Your task to perform on an android device: empty trash in the gmail app Image 0: 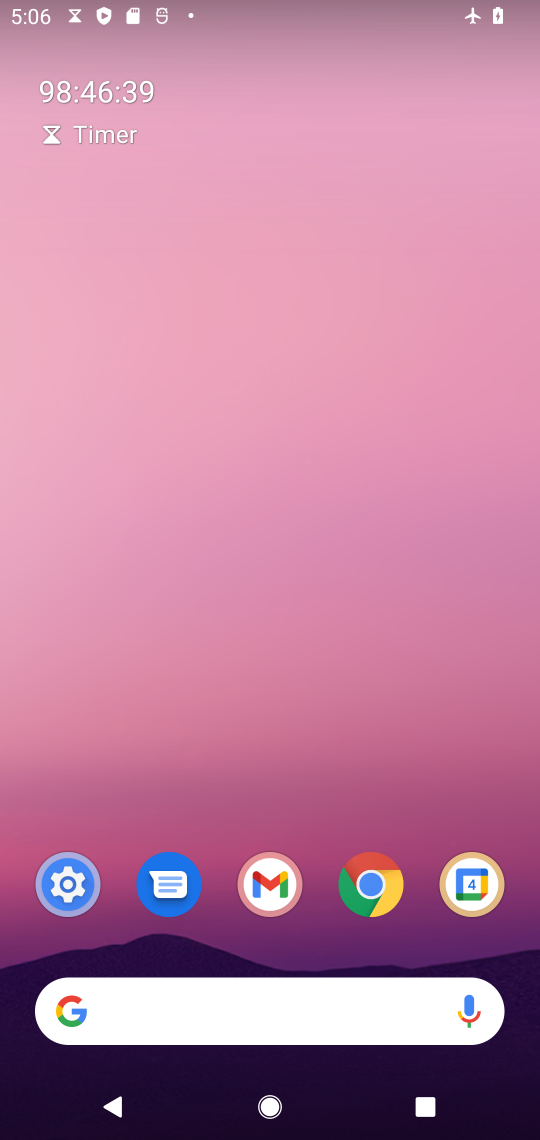
Step 0: drag from (295, 873) to (313, 450)
Your task to perform on an android device: empty trash in the gmail app Image 1: 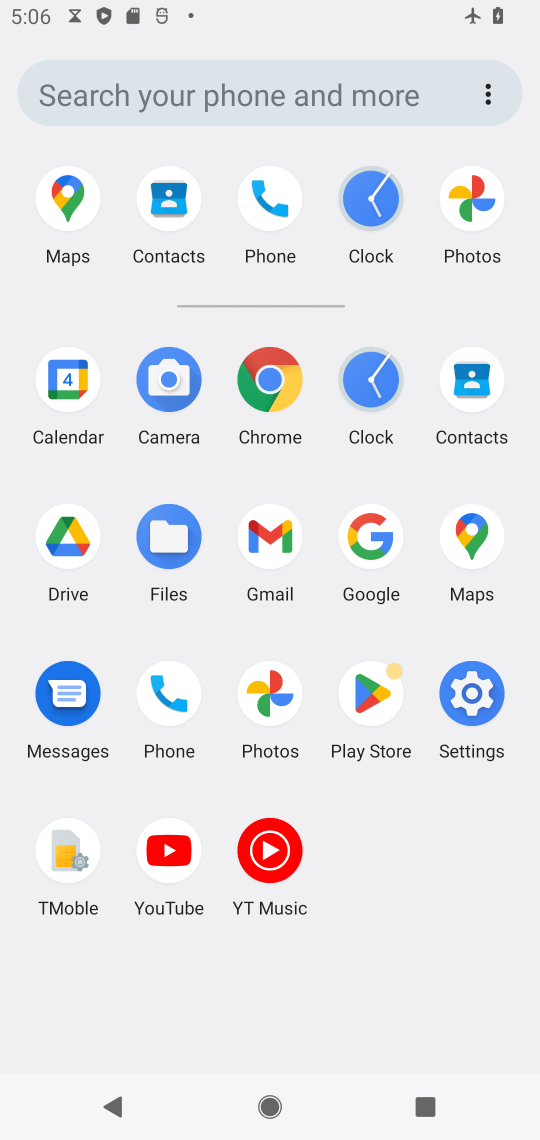
Step 1: click (283, 543)
Your task to perform on an android device: empty trash in the gmail app Image 2: 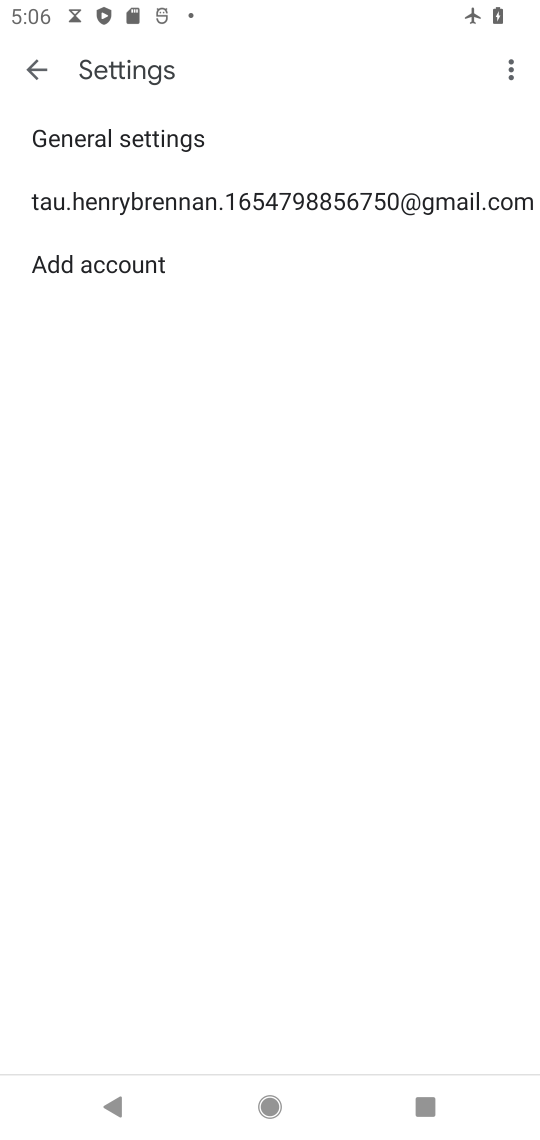
Step 2: click (22, 58)
Your task to perform on an android device: empty trash in the gmail app Image 3: 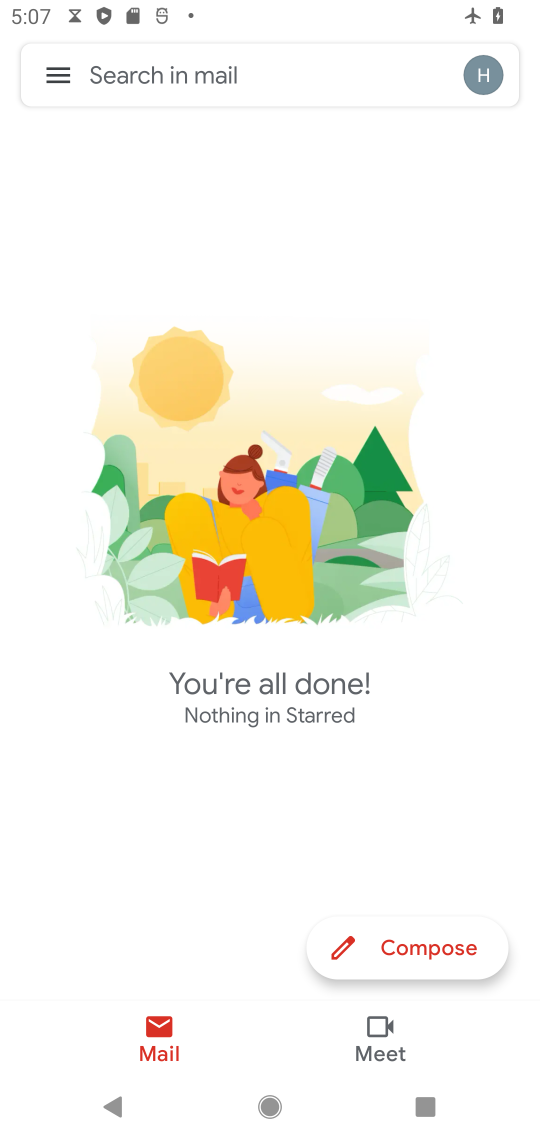
Step 3: click (55, 67)
Your task to perform on an android device: empty trash in the gmail app Image 4: 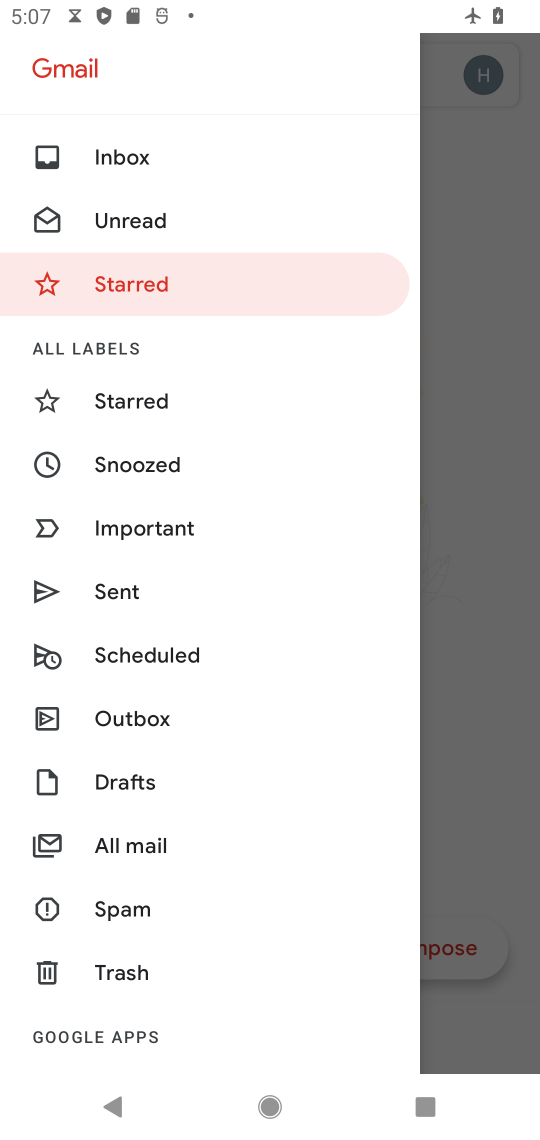
Step 4: click (111, 956)
Your task to perform on an android device: empty trash in the gmail app Image 5: 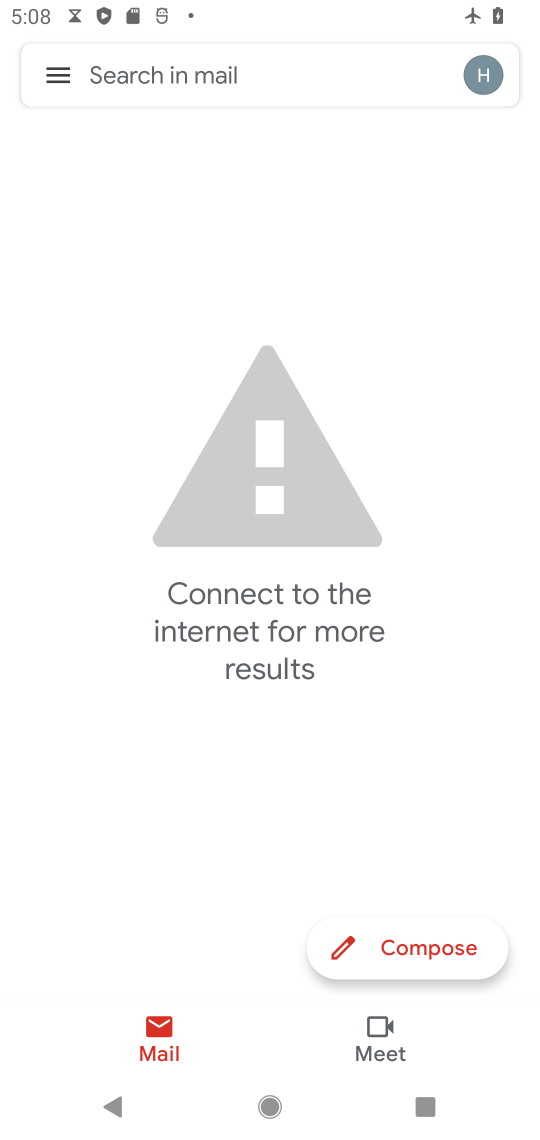
Step 5: task complete